Your task to perform on an android device: Go to Wikipedia Image 0: 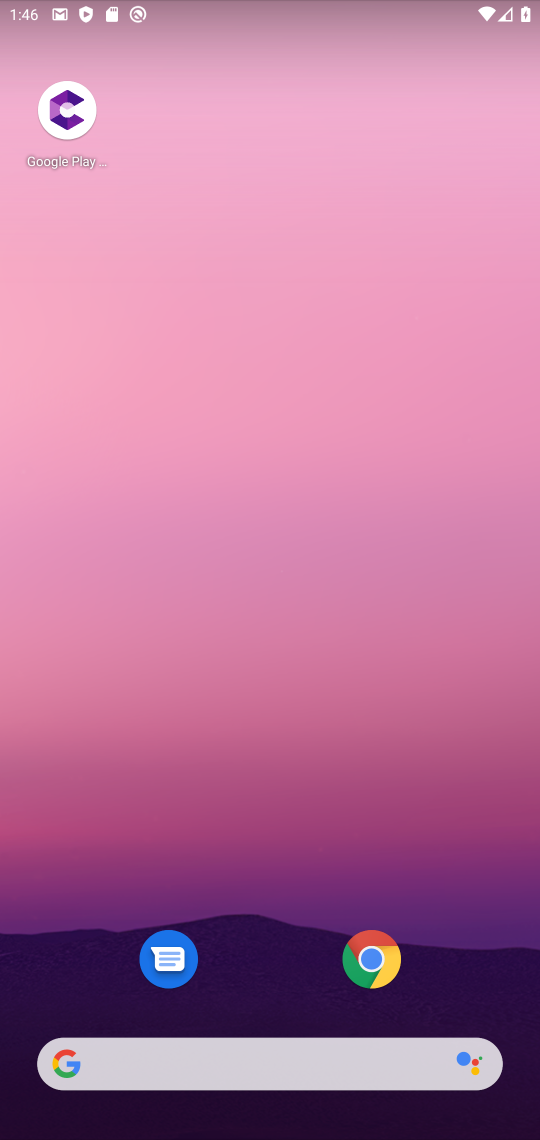
Step 0: click (155, 1066)
Your task to perform on an android device: Go to Wikipedia Image 1: 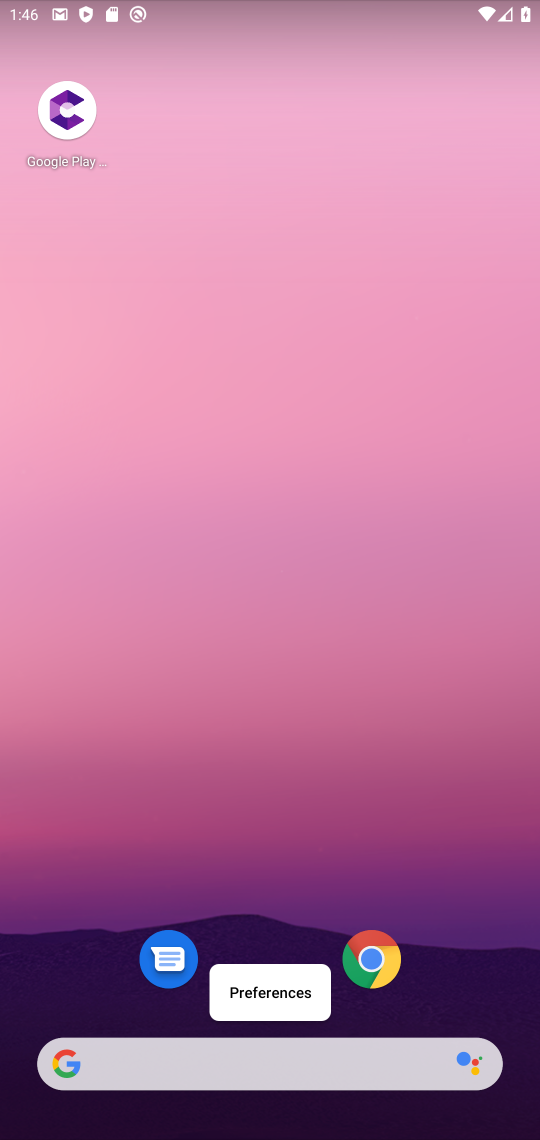
Step 1: type "wikipedia"
Your task to perform on an android device: Go to Wikipedia Image 2: 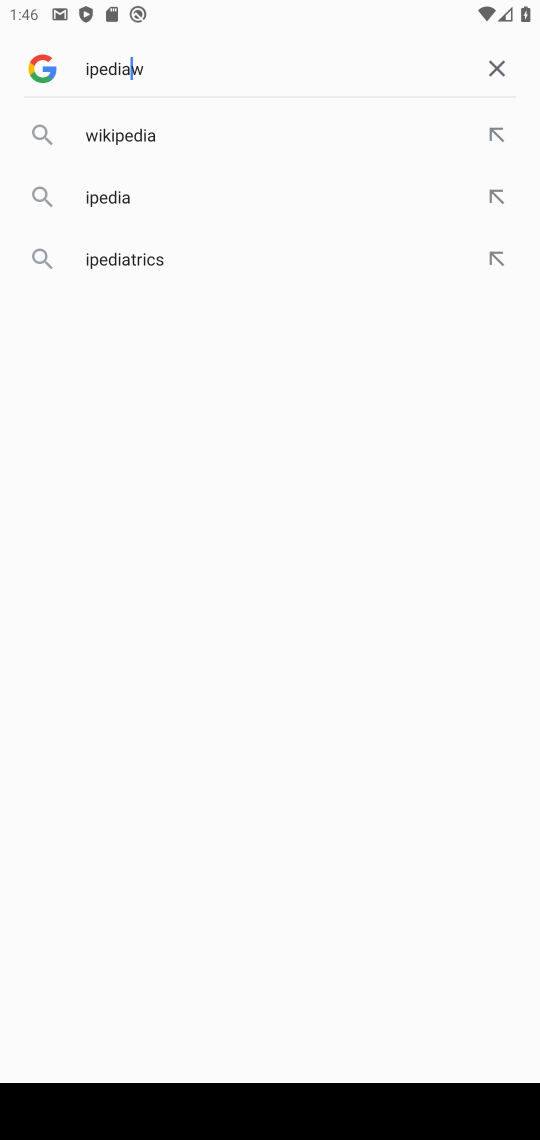
Step 2: click (148, 143)
Your task to perform on an android device: Go to Wikipedia Image 3: 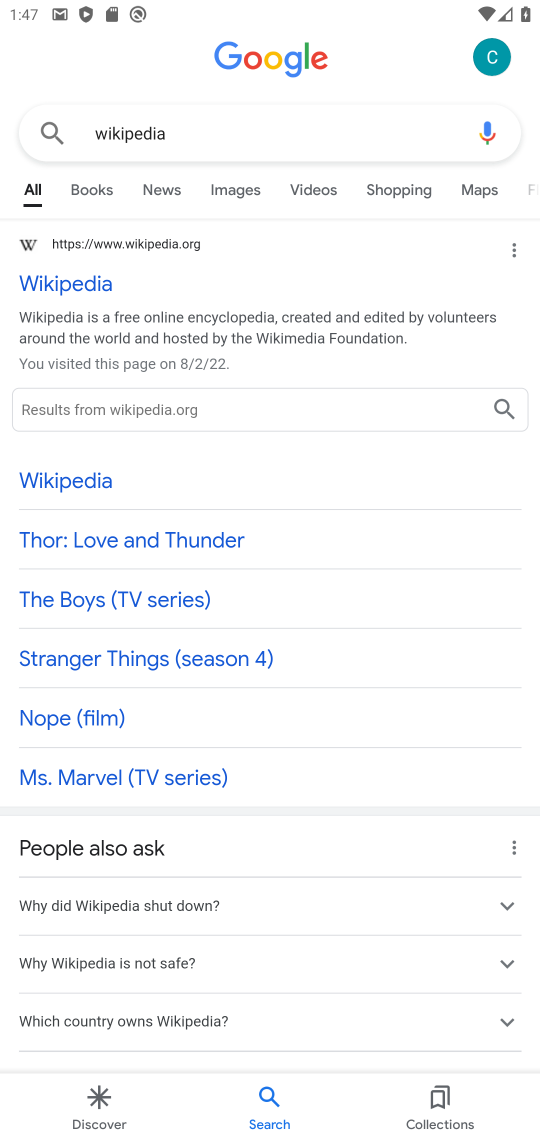
Step 3: click (87, 278)
Your task to perform on an android device: Go to Wikipedia Image 4: 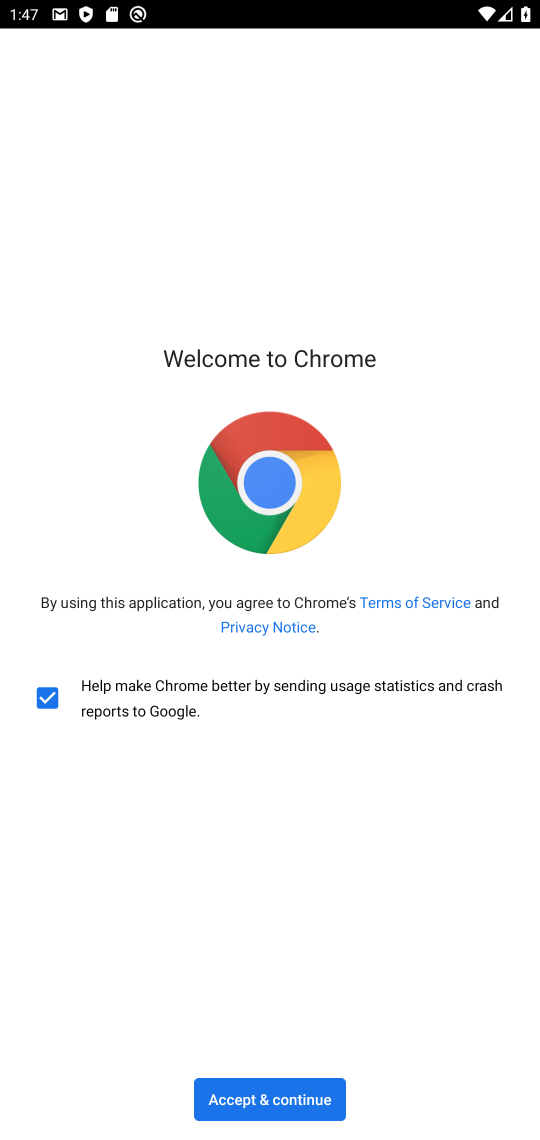
Step 4: click (333, 1092)
Your task to perform on an android device: Go to Wikipedia Image 5: 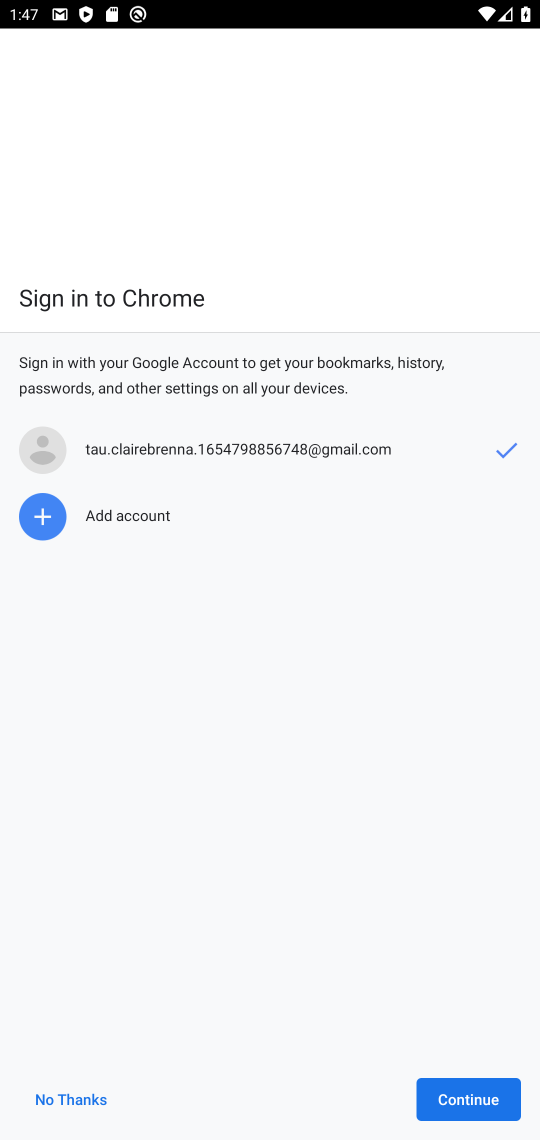
Step 5: click (497, 1112)
Your task to perform on an android device: Go to Wikipedia Image 6: 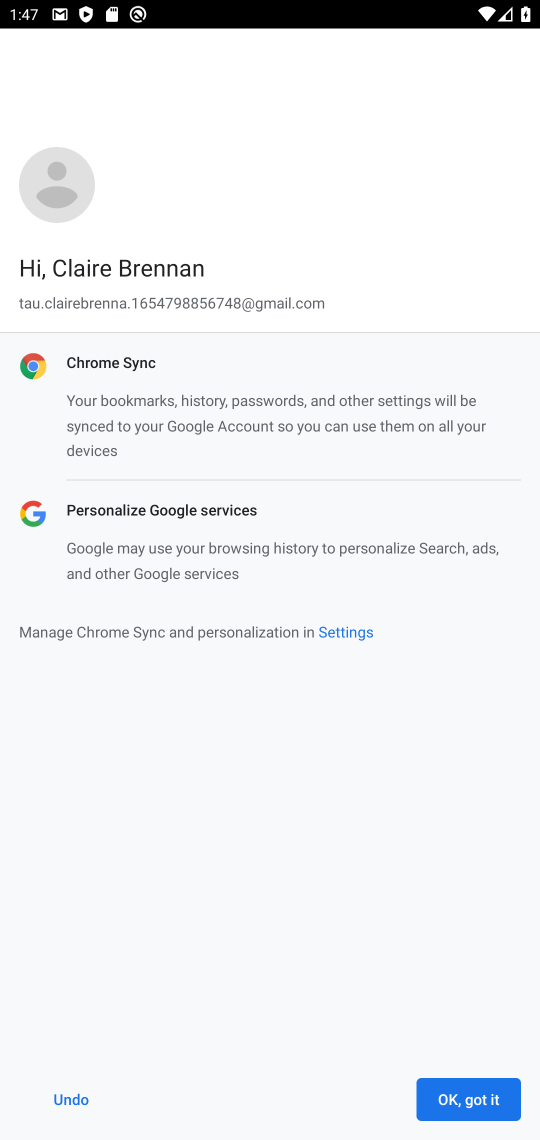
Step 6: click (508, 1083)
Your task to perform on an android device: Go to Wikipedia Image 7: 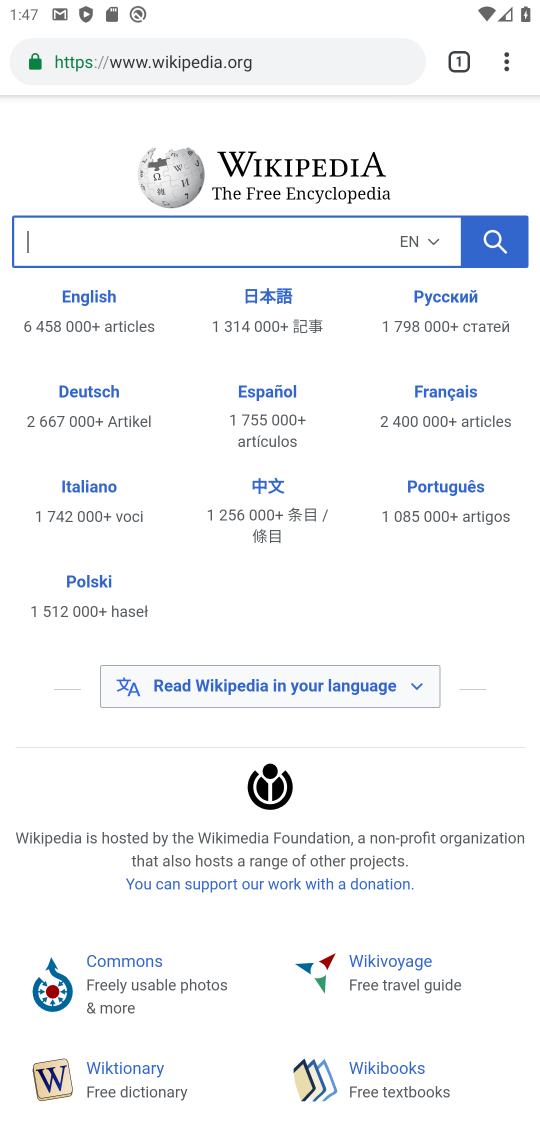
Step 7: task complete